Your task to perform on an android device: Toggle the flashlight Image 0: 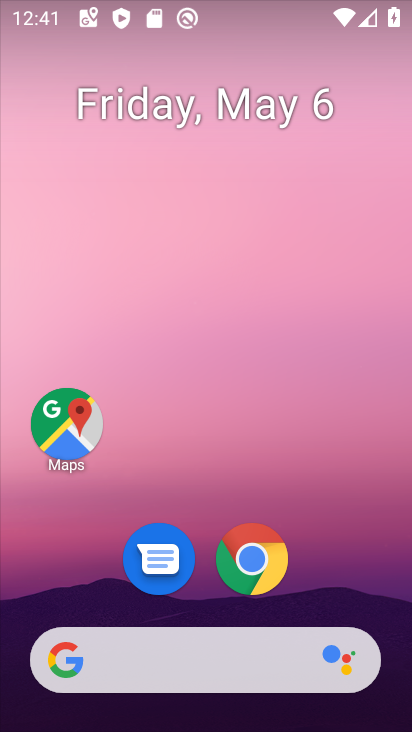
Step 0: drag from (326, 613) to (296, 110)
Your task to perform on an android device: Toggle the flashlight Image 1: 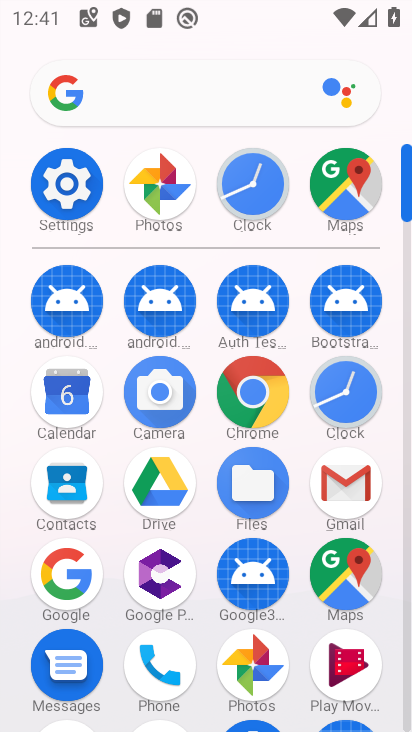
Step 1: click (66, 198)
Your task to perform on an android device: Toggle the flashlight Image 2: 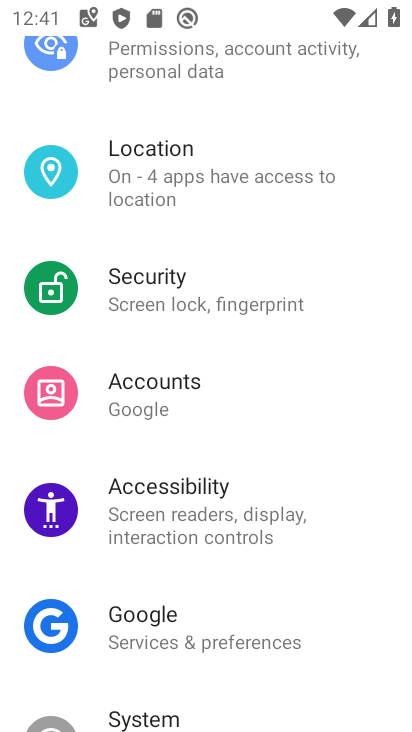
Step 2: task complete